Your task to perform on an android device: Open Google Image 0: 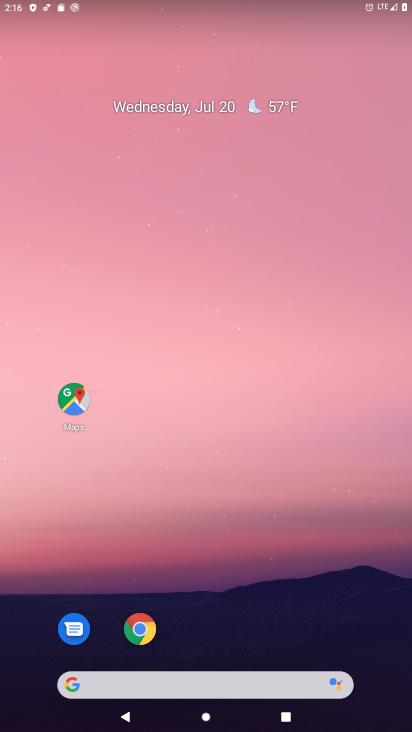
Step 0: click (141, 631)
Your task to perform on an android device: Open Google Image 1: 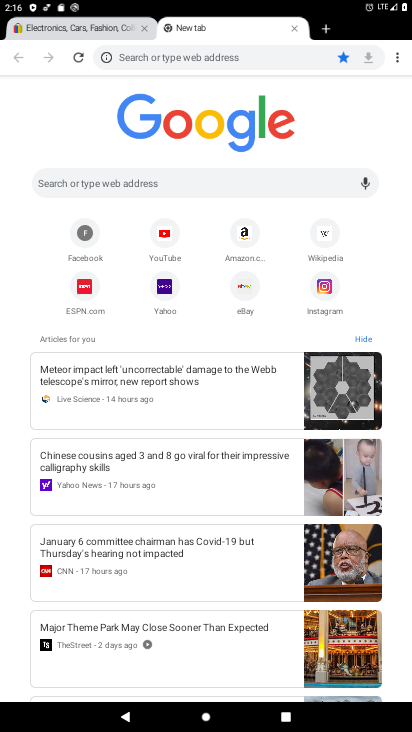
Step 1: task complete